Your task to perform on an android device: Search for vegetarian restaurants on Maps Image 0: 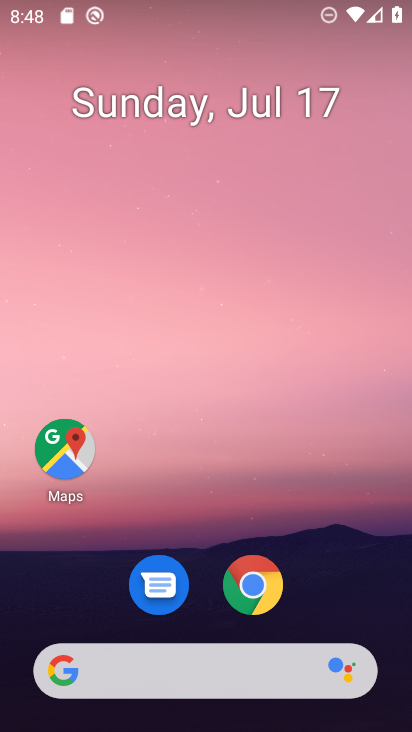
Step 0: click (69, 451)
Your task to perform on an android device: Search for vegetarian restaurants on Maps Image 1: 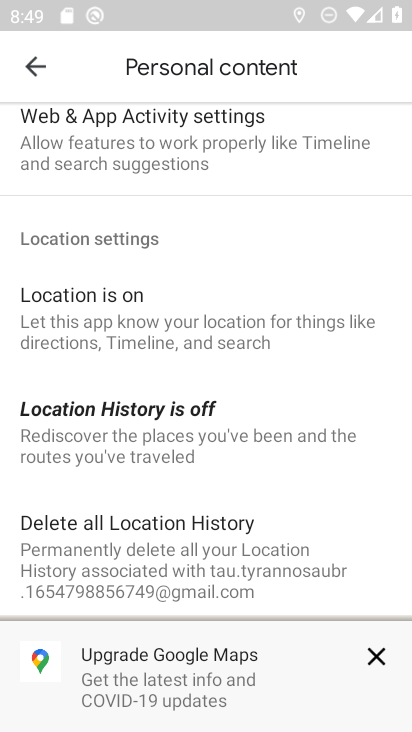
Step 1: click (38, 63)
Your task to perform on an android device: Search for vegetarian restaurants on Maps Image 2: 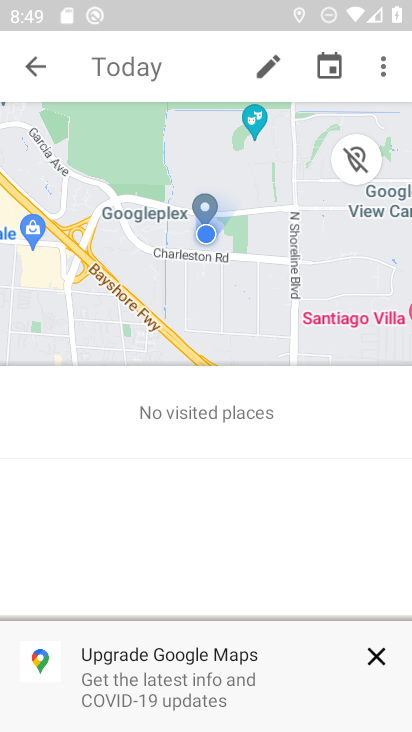
Step 2: click (38, 63)
Your task to perform on an android device: Search for vegetarian restaurants on Maps Image 3: 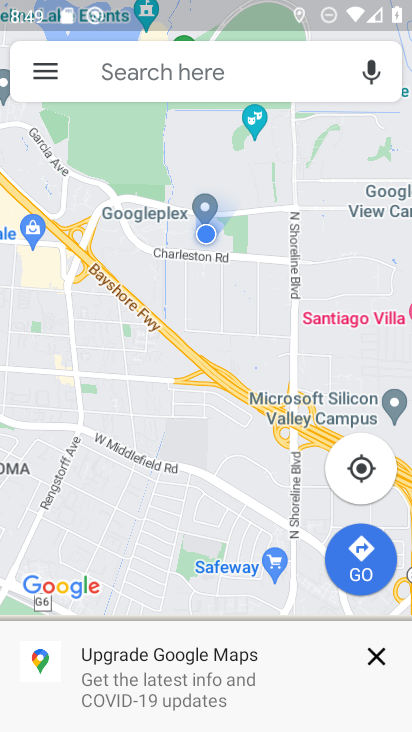
Step 3: click (225, 68)
Your task to perform on an android device: Search for vegetarian restaurants on Maps Image 4: 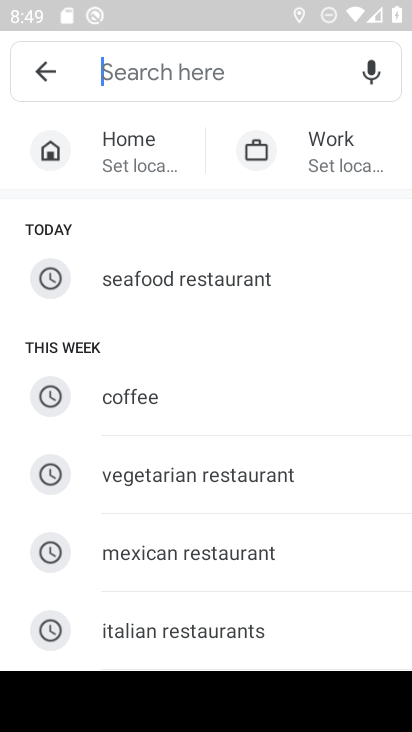
Step 4: click (225, 485)
Your task to perform on an android device: Search for vegetarian restaurants on Maps Image 5: 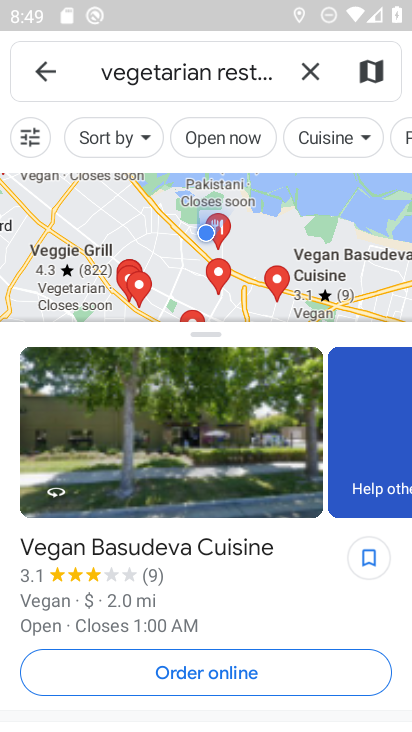
Step 5: task complete